Your task to perform on an android device: Open calendar and show me the fourth week of next month Image 0: 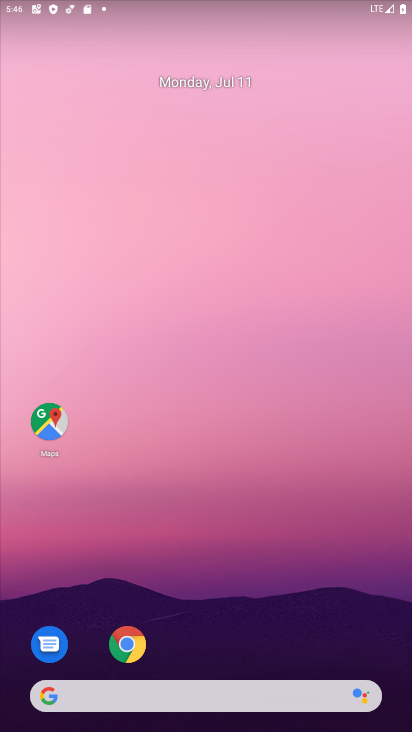
Step 0: drag from (198, 685) to (211, 179)
Your task to perform on an android device: Open calendar and show me the fourth week of next month Image 1: 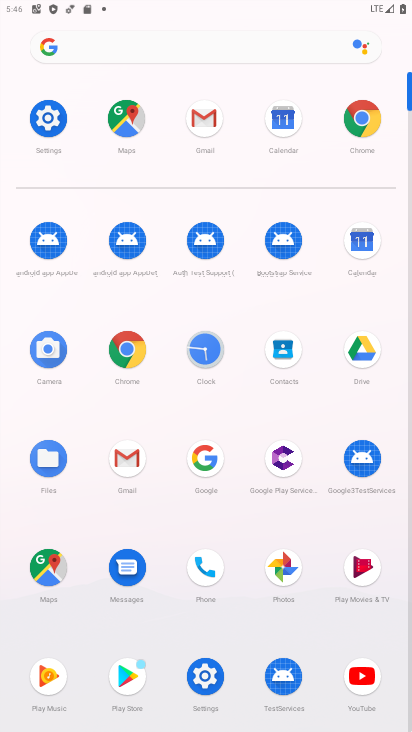
Step 1: click (362, 237)
Your task to perform on an android device: Open calendar and show me the fourth week of next month Image 2: 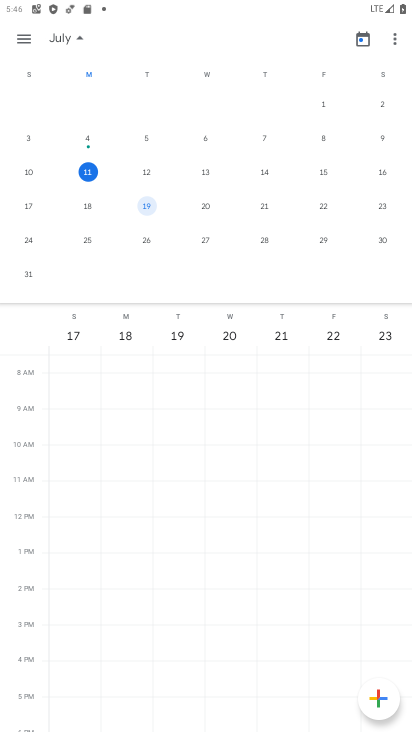
Step 2: drag from (332, 208) to (41, 184)
Your task to perform on an android device: Open calendar and show me the fourth week of next month Image 3: 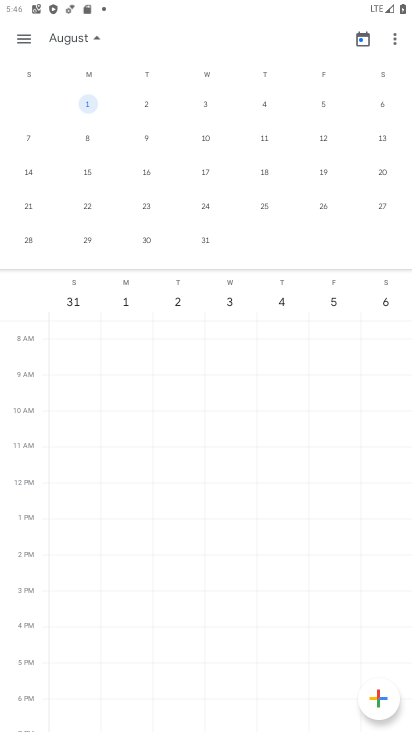
Step 3: click (209, 204)
Your task to perform on an android device: Open calendar and show me the fourth week of next month Image 4: 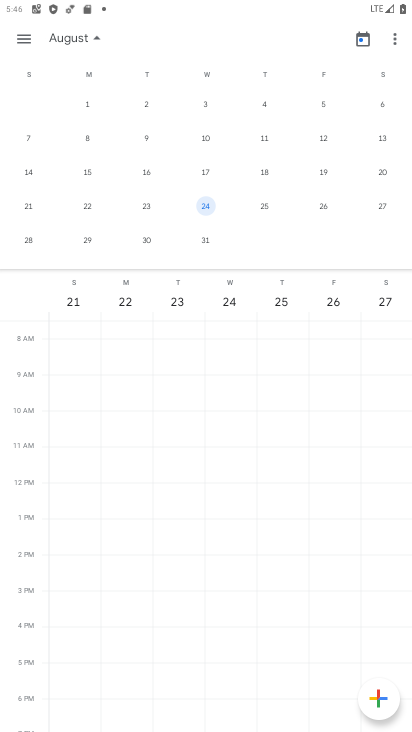
Step 4: task complete